Your task to perform on an android device: Open settings on Google Maps Image 0: 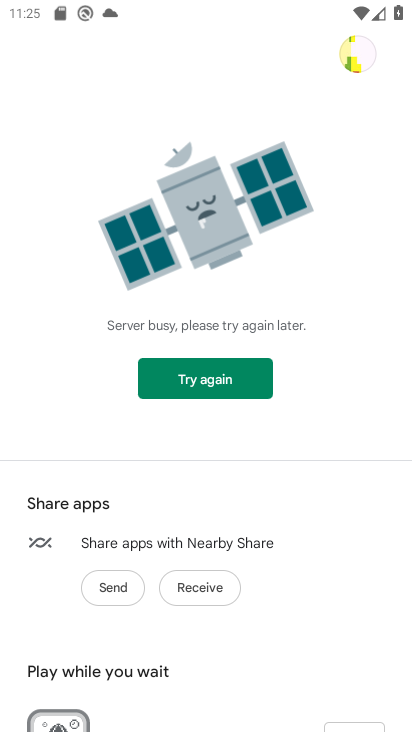
Step 0: press back button
Your task to perform on an android device: Open settings on Google Maps Image 1: 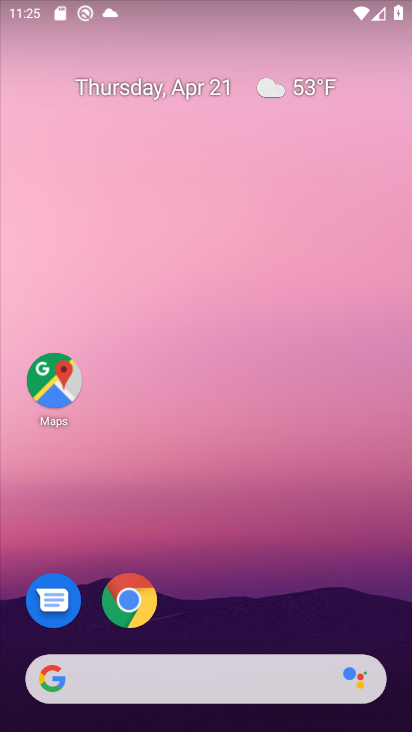
Step 1: drag from (148, 530) to (212, 105)
Your task to perform on an android device: Open settings on Google Maps Image 2: 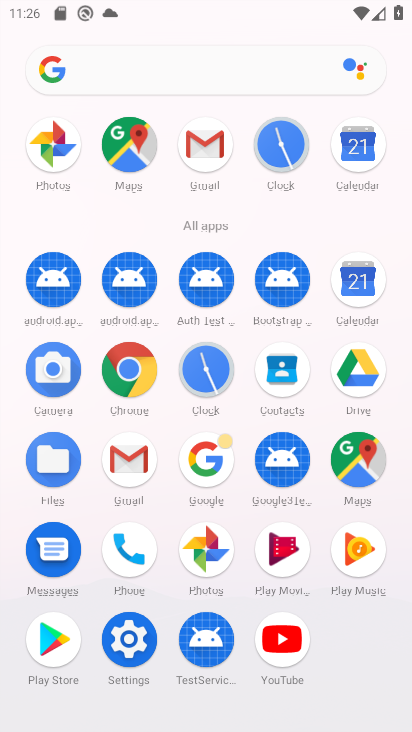
Step 2: click (371, 468)
Your task to perform on an android device: Open settings on Google Maps Image 3: 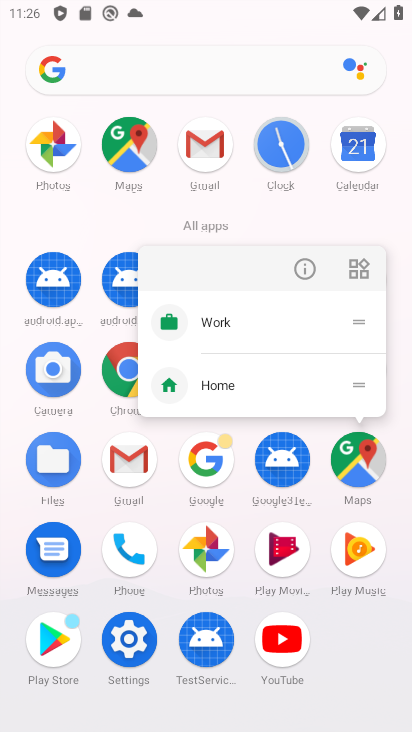
Step 3: click (371, 468)
Your task to perform on an android device: Open settings on Google Maps Image 4: 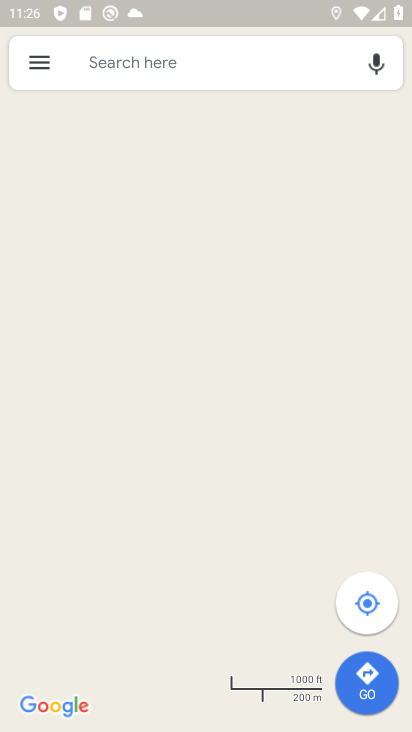
Step 4: click (37, 63)
Your task to perform on an android device: Open settings on Google Maps Image 5: 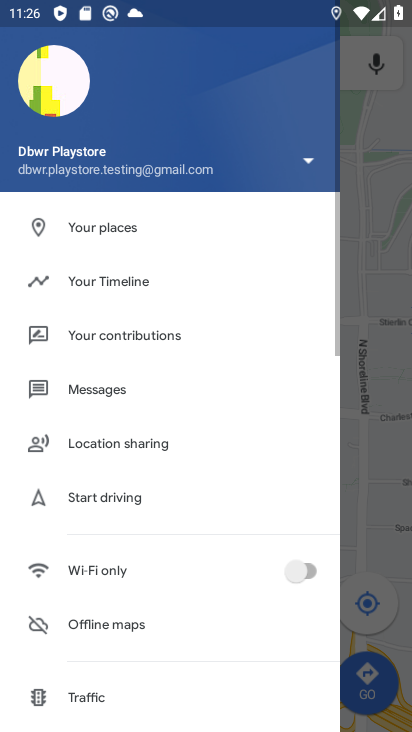
Step 5: drag from (186, 643) to (248, 262)
Your task to perform on an android device: Open settings on Google Maps Image 6: 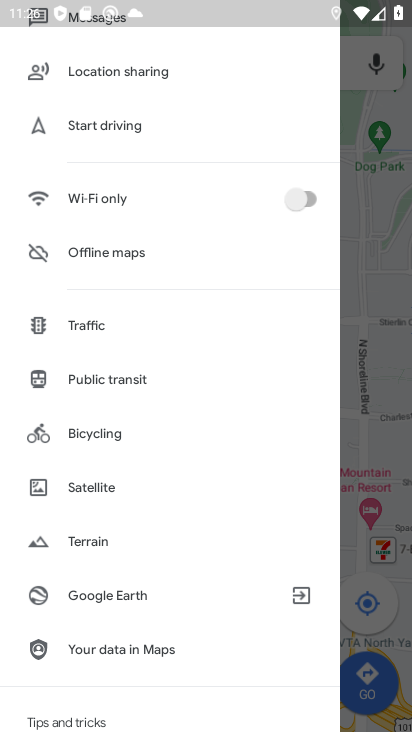
Step 6: drag from (136, 684) to (212, 320)
Your task to perform on an android device: Open settings on Google Maps Image 7: 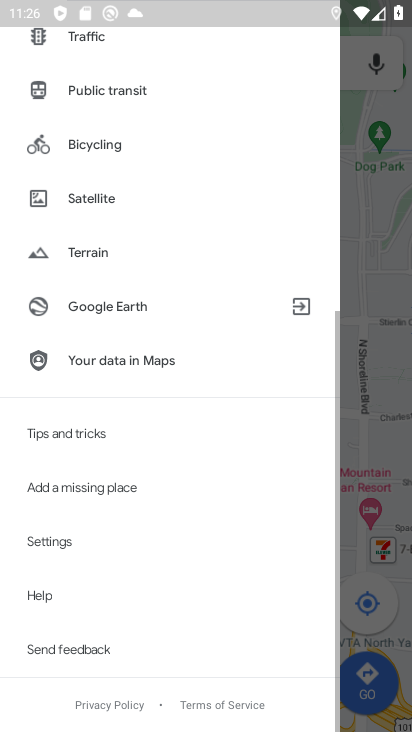
Step 7: click (112, 548)
Your task to perform on an android device: Open settings on Google Maps Image 8: 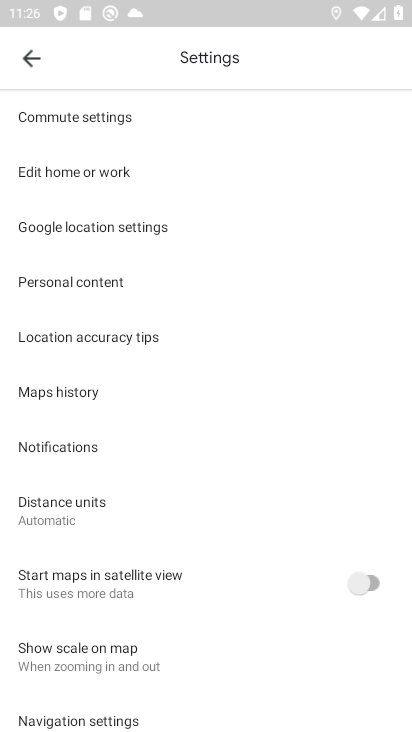
Step 8: task complete